Your task to perform on an android device: Open network settings Image 0: 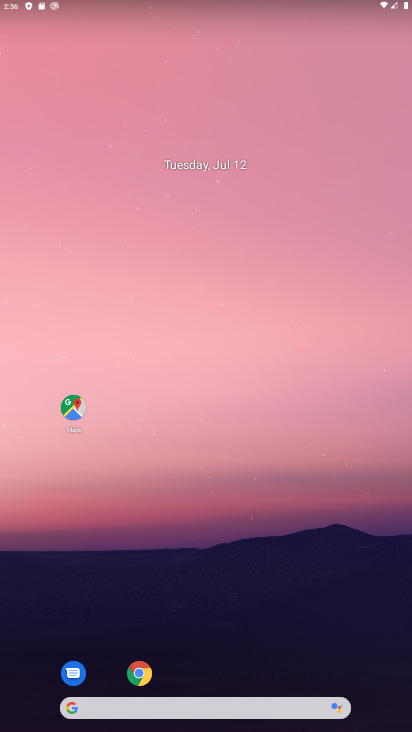
Step 0: drag from (278, 637) to (281, 278)
Your task to perform on an android device: Open network settings Image 1: 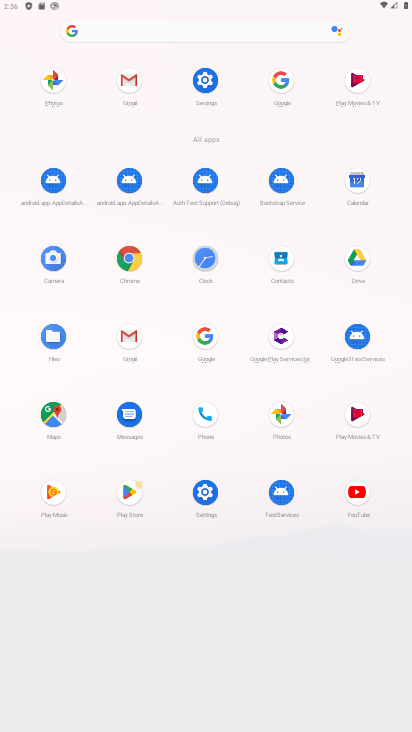
Step 1: click (199, 79)
Your task to perform on an android device: Open network settings Image 2: 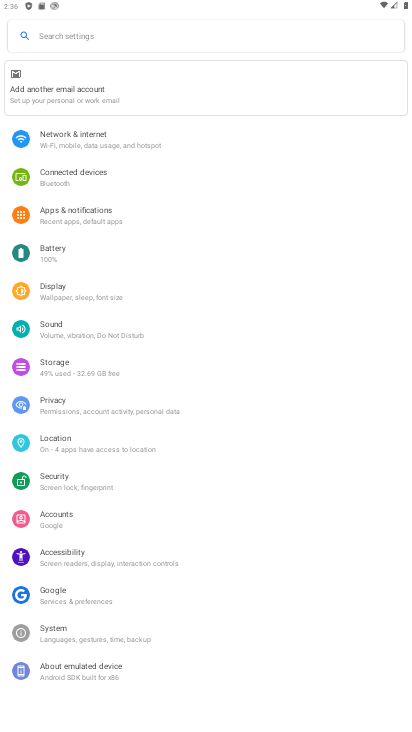
Step 2: click (130, 131)
Your task to perform on an android device: Open network settings Image 3: 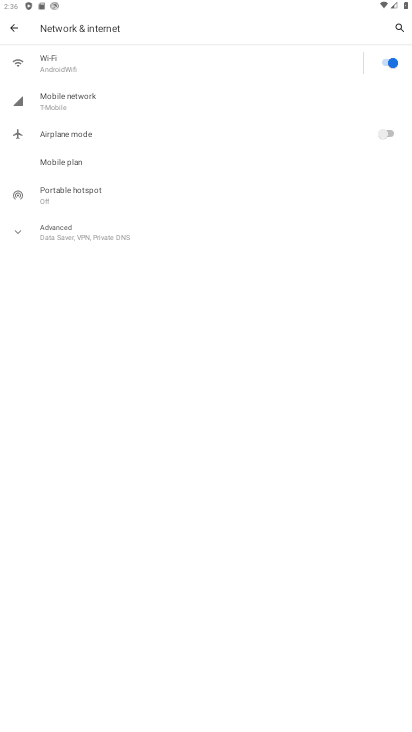
Step 3: task complete